Your task to perform on an android device: delete a single message in the gmail app Image 0: 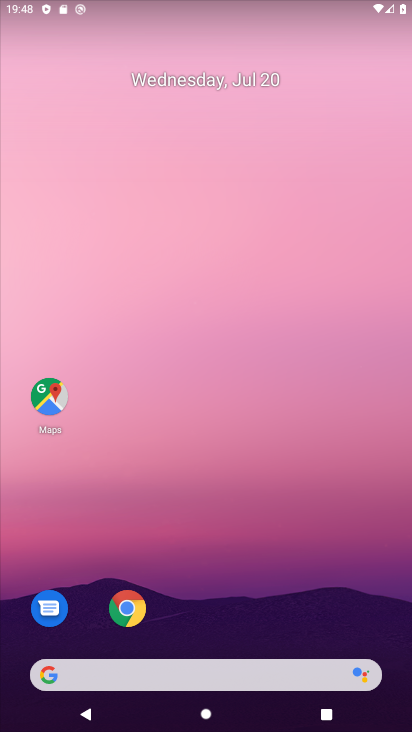
Step 0: drag from (225, 619) to (200, 63)
Your task to perform on an android device: delete a single message in the gmail app Image 1: 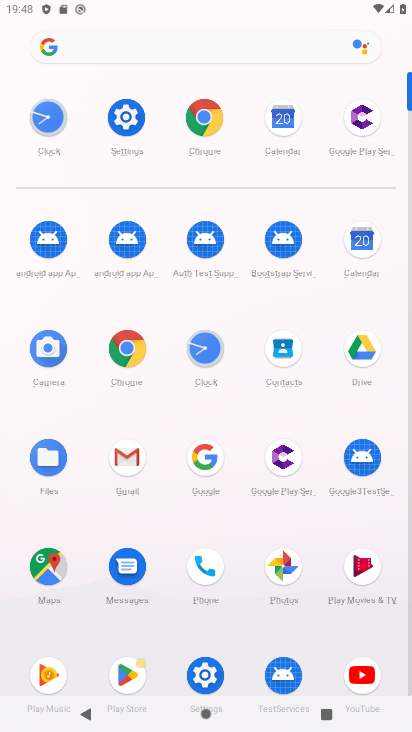
Step 1: click (128, 456)
Your task to perform on an android device: delete a single message in the gmail app Image 2: 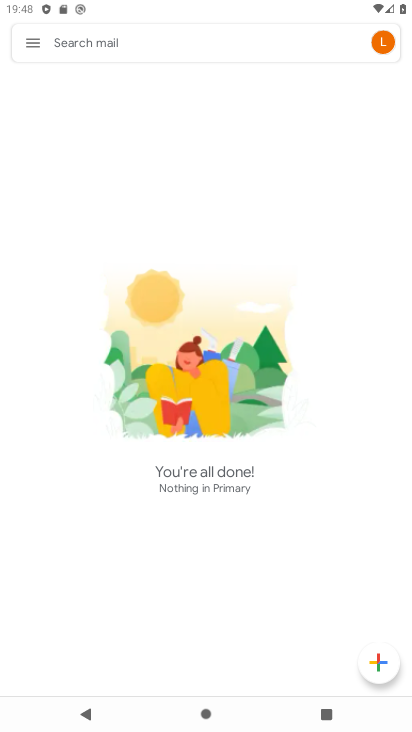
Step 2: click (26, 43)
Your task to perform on an android device: delete a single message in the gmail app Image 3: 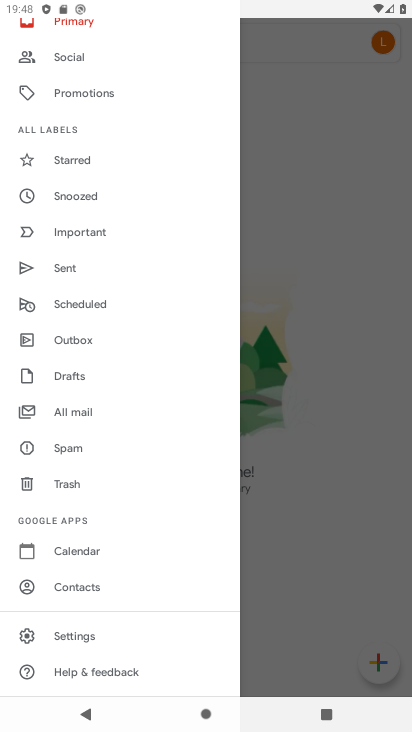
Step 3: click (72, 412)
Your task to perform on an android device: delete a single message in the gmail app Image 4: 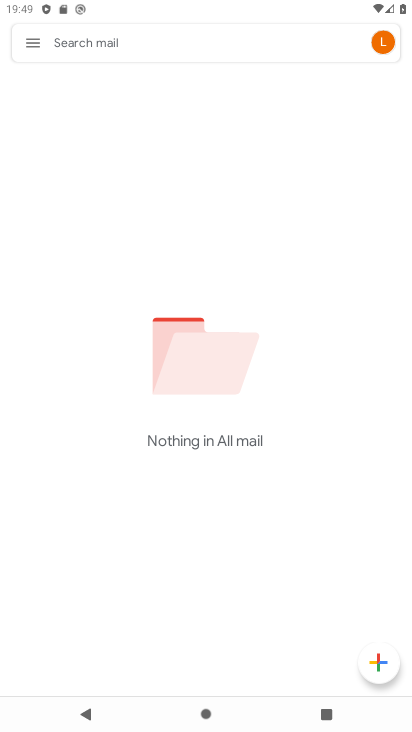
Step 4: task complete